Your task to perform on an android device: star an email in the gmail app Image 0: 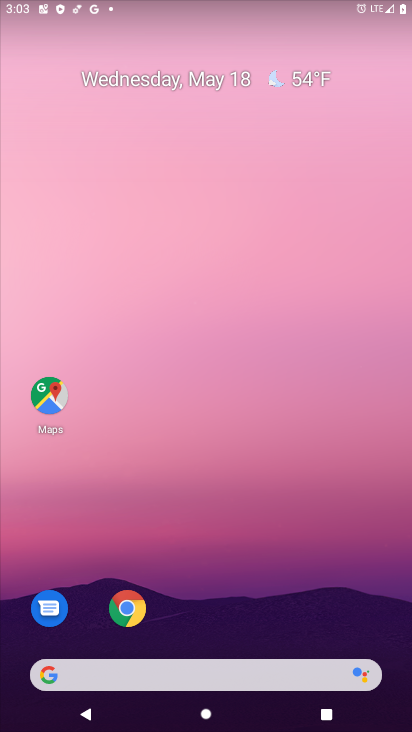
Step 0: drag from (332, 612) to (294, 4)
Your task to perform on an android device: star an email in the gmail app Image 1: 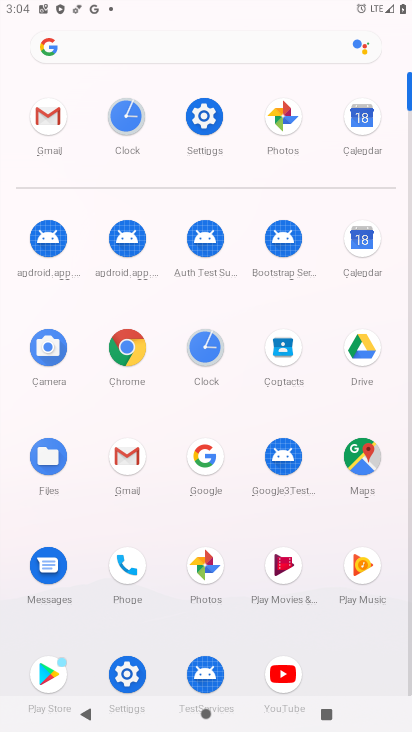
Step 1: click (38, 118)
Your task to perform on an android device: star an email in the gmail app Image 2: 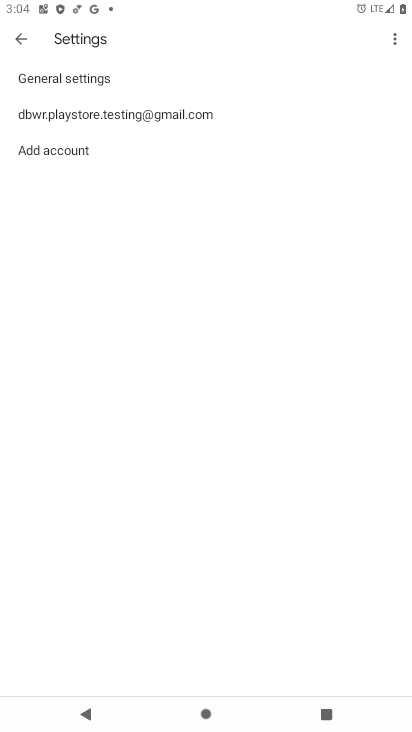
Step 2: click (21, 33)
Your task to perform on an android device: star an email in the gmail app Image 3: 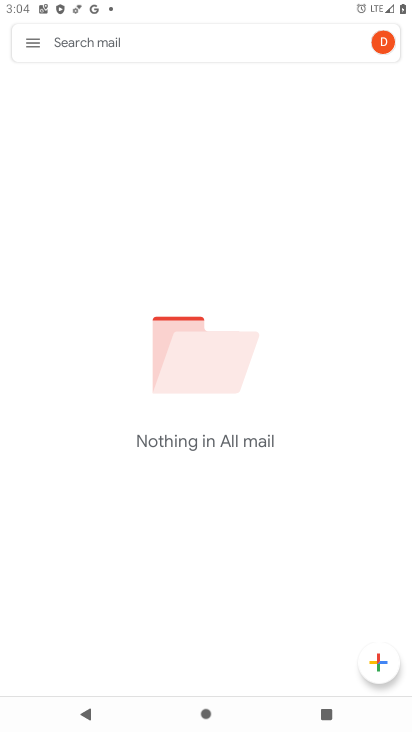
Step 3: task complete